Your task to perform on an android device: toggle sleep mode Image 0: 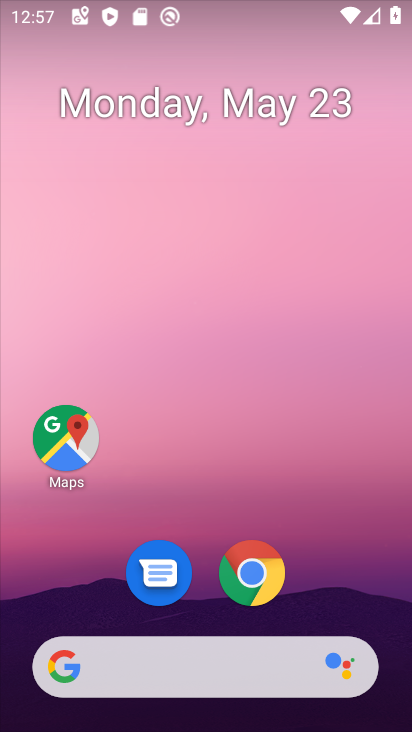
Step 0: drag from (326, 637) to (245, 41)
Your task to perform on an android device: toggle sleep mode Image 1: 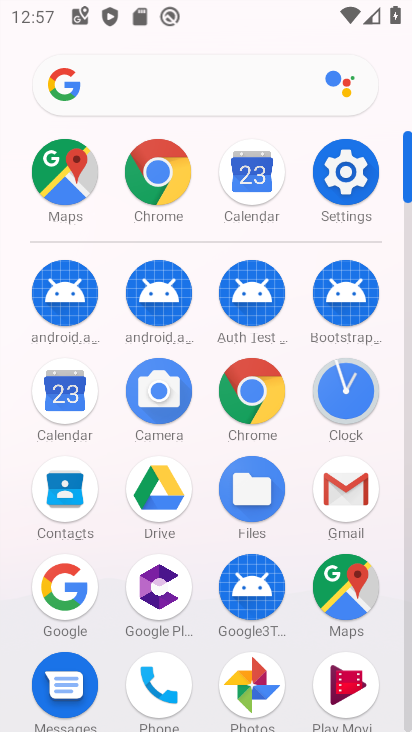
Step 1: click (349, 163)
Your task to perform on an android device: toggle sleep mode Image 2: 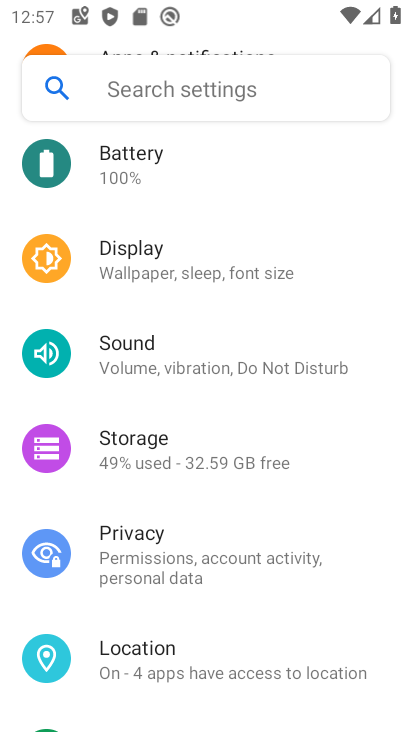
Step 2: task complete